Your task to perform on an android device: Go to internet settings Image 0: 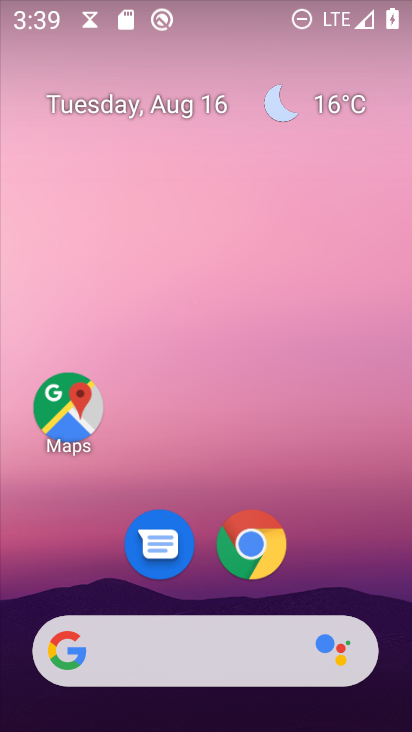
Step 0: drag from (165, 670) to (205, 126)
Your task to perform on an android device: Go to internet settings Image 1: 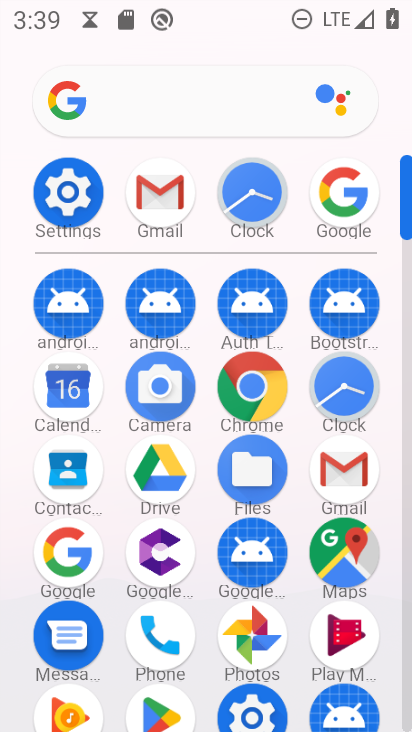
Step 1: click (69, 191)
Your task to perform on an android device: Go to internet settings Image 2: 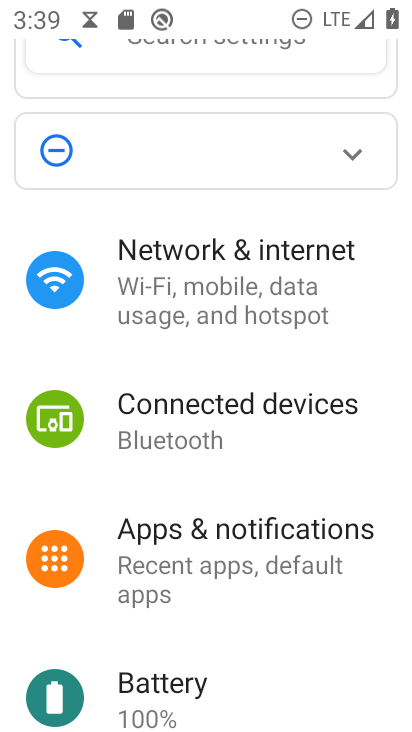
Step 2: click (171, 252)
Your task to perform on an android device: Go to internet settings Image 3: 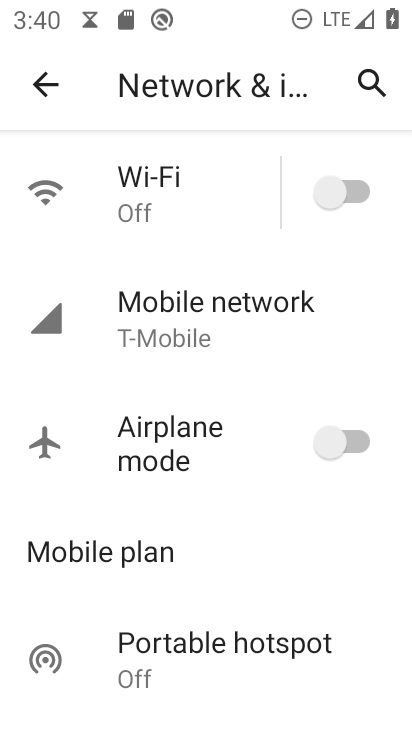
Step 3: task complete